Your task to perform on an android device: turn pop-ups on in chrome Image 0: 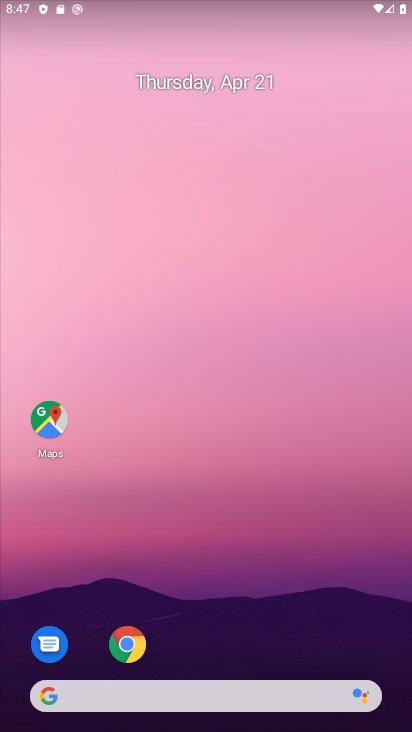
Step 0: drag from (307, 467) to (376, 88)
Your task to perform on an android device: turn pop-ups on in chrome Image 1: 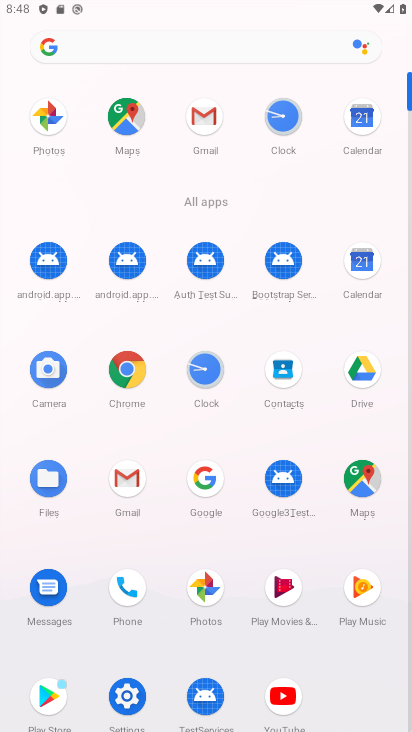
Step 1: click (122, 366)
Your task to perform on an android device: turn pop-ups on in chrome Image 2: 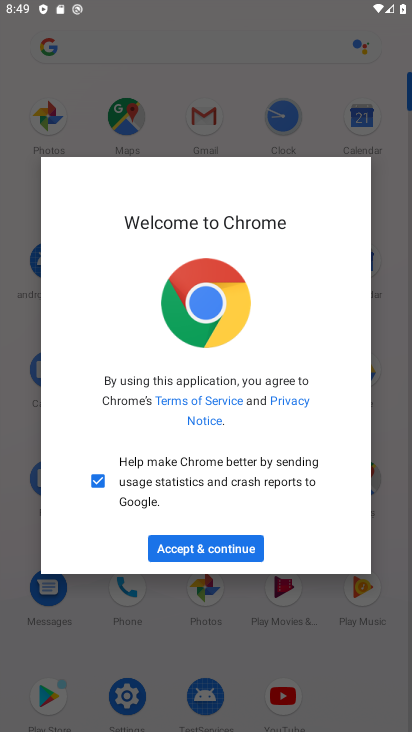
Step 2: click (253, 546)
Your task to perform on an android device: turn pop-ups on in chrome Image 3: 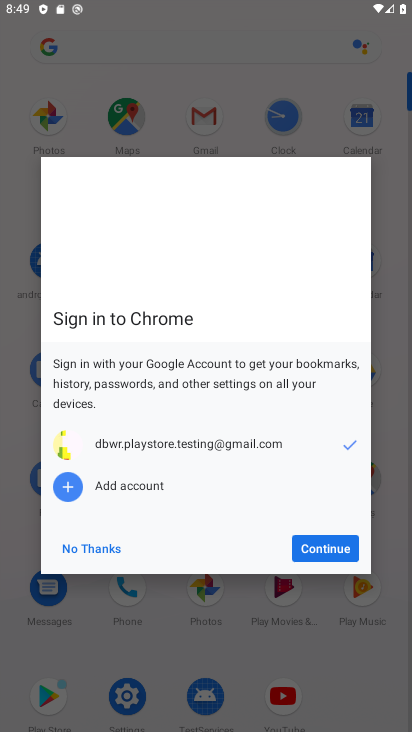
Step 3: click (307, 549)
Your task to perform on an android device: turn pop-ups on in chrome Image 4: 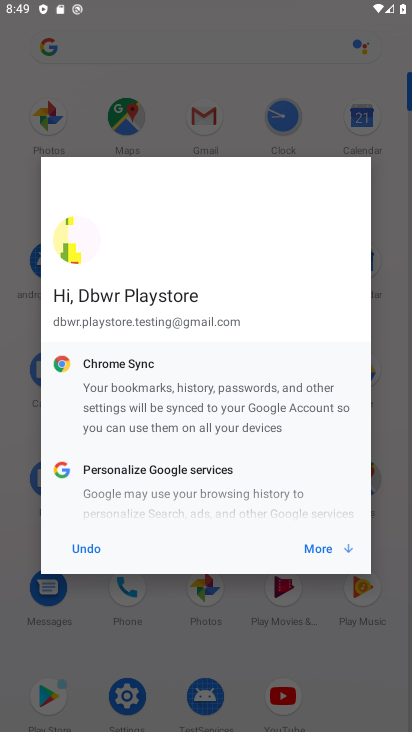
Step 4: click (305, 552)
Your task to perform on an android device: turn pop-ups on in chrome Image 5: 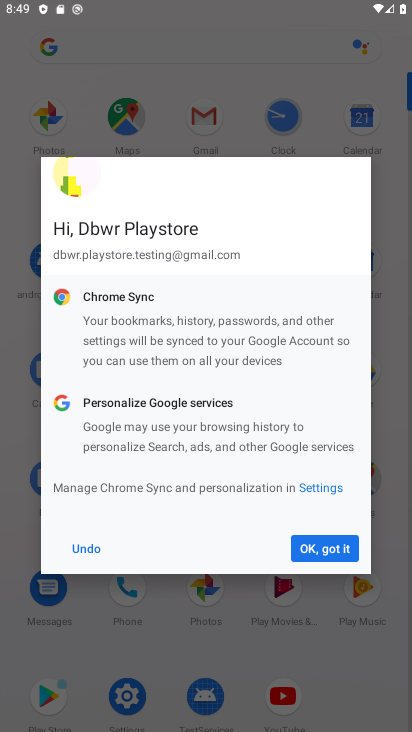
Step 5: click (302, 554)
Your task to perform on an android device: turn pop-ups on in chrome Image 6: 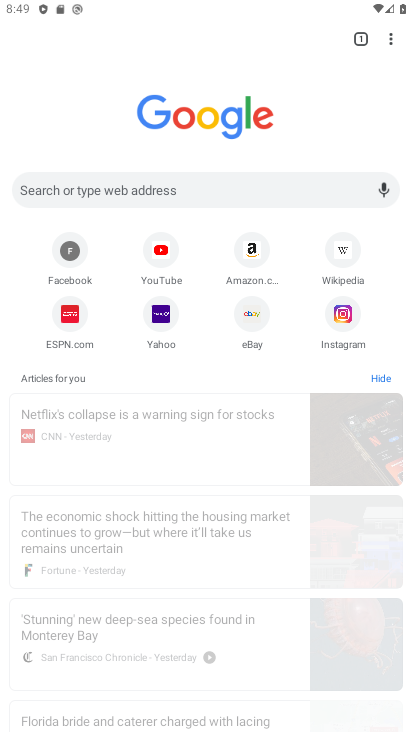
Step 6: drag from (386, 27) to (252, 321)
Your task to perform on an android device: turn pop-ups on in chrome Image 7: 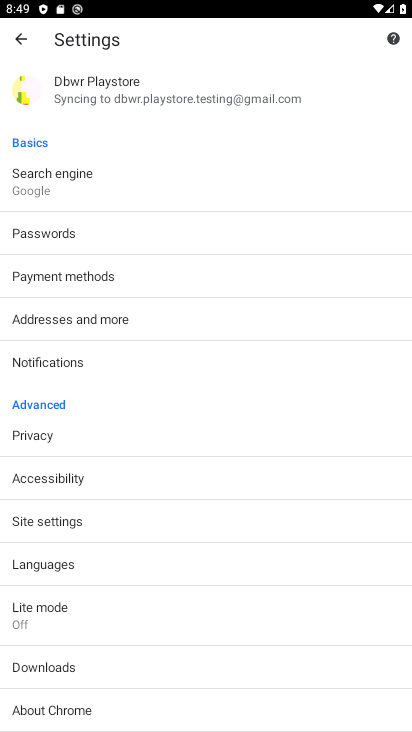
Step 7: drag from (77, 560) to (94, 444)
Your task to perform on an android device: turn pop-ups on in chrome Image 8: 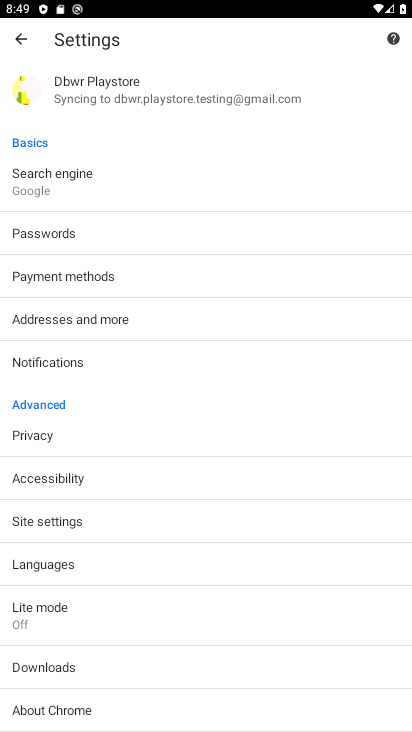
Step 8: click (79, 522)
Your task to perform on an android device: turn pop-ups on in chrome Image 9: 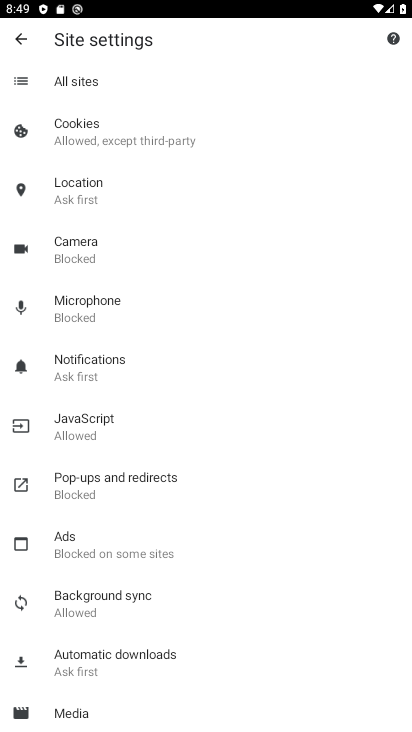
Step 9: click (89, 484)
Your task to perform on an android device: turn pop-ups on in chrome Image 10: 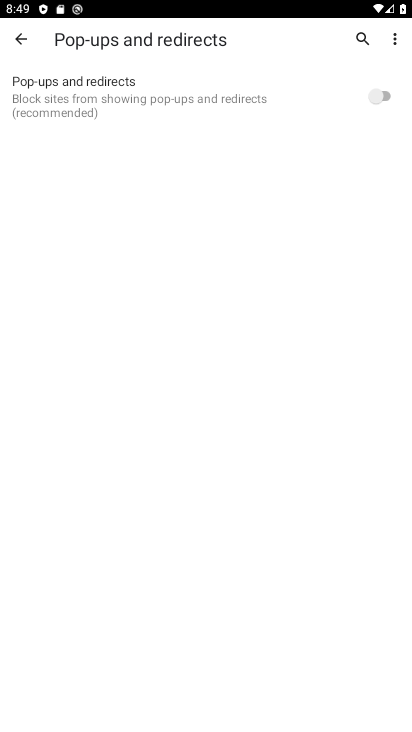
Step 10: click (375, 90)
Your task to perform on an android device: turn pop-ups on in chrome Image 11: 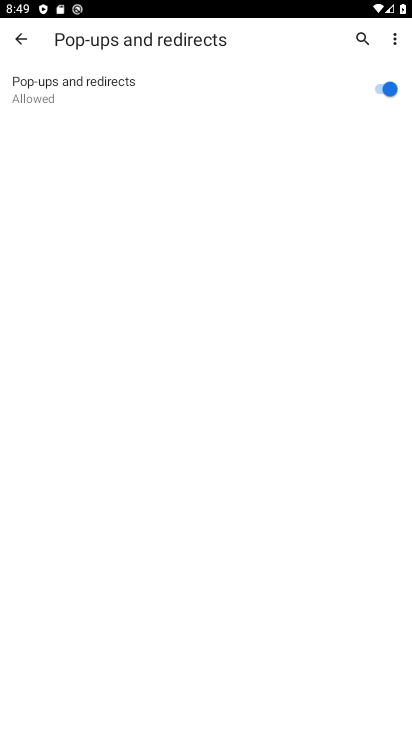
Step 11: task complete